Your task to perform on an android device: toggle pop-ups in chrome Image 0: 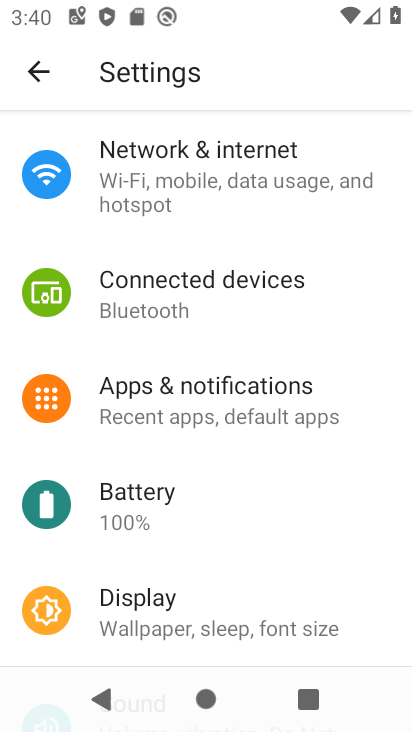
Step 0: press back button
Your task to perform on an android device: toggle pop-ups in chrome Image 1: 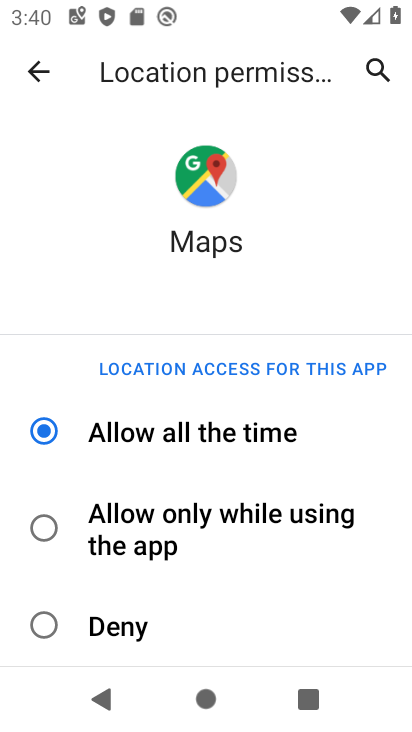
Step 1: press back button
Your task to perform on an android device: toggle pop-ups in chrome Image 2: 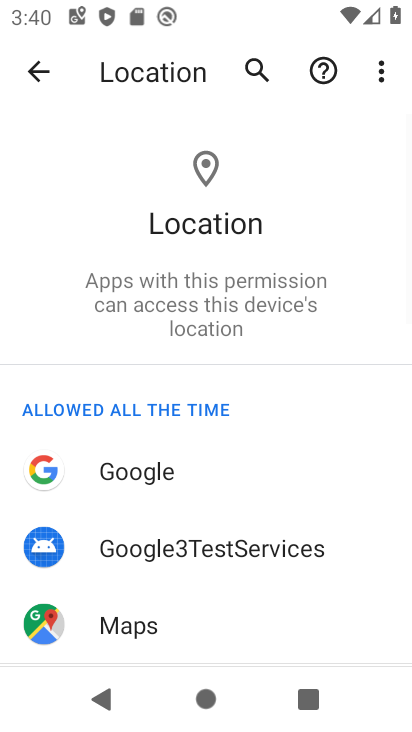
Step 2: press back button
Your task to perform on an android device: toggle pop-ups in chrome Image 3: 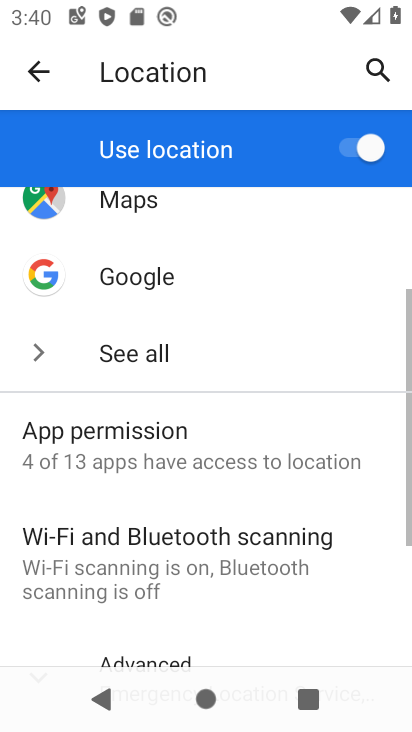
Step 3: press back button
Your task to perform on an android device: toggle pop-ups in chrome Image 4: 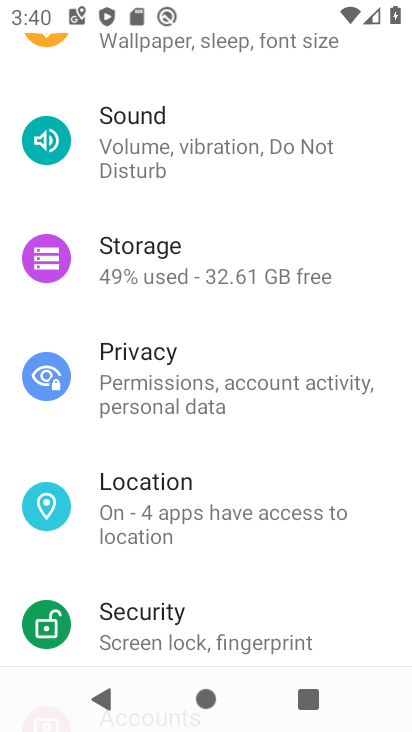
Step 4: press back button
Your task to perform on an android device: toggle pop-ups in chrome Image 5: 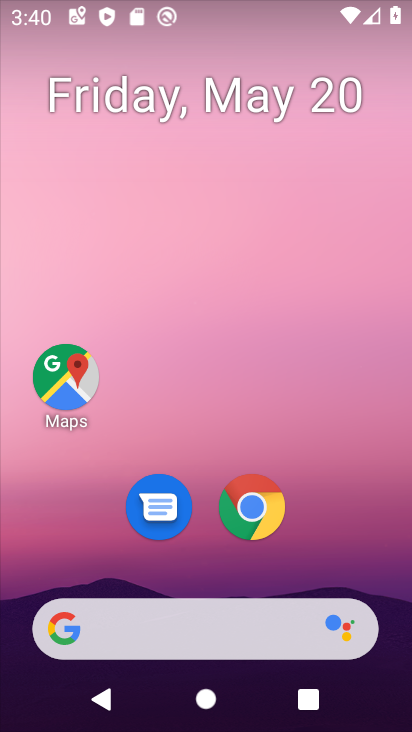
Step 5: click (255, 507)
Your task to perform on an android device: toggle pop-ups in chrome Image 6: 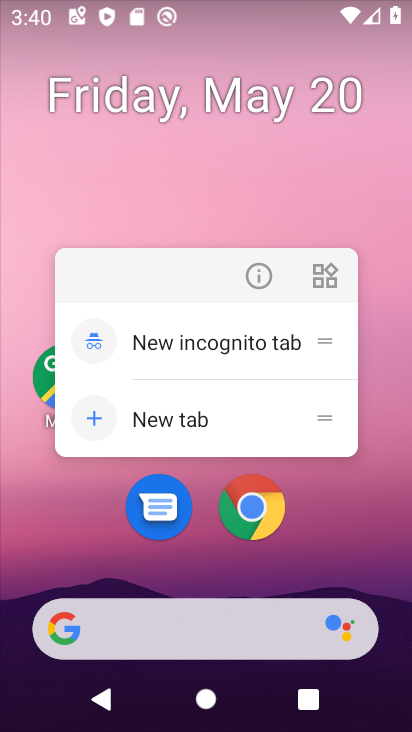
Step 6: click (254, 505)
Your task to perform on an android device: toggle pop-ups in chrome Image 7: 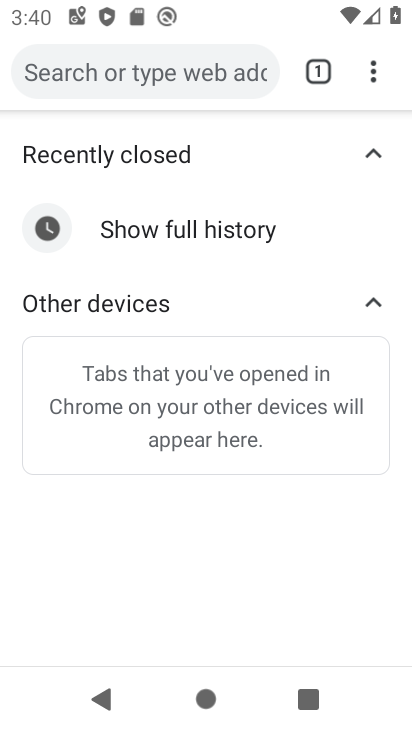
Step 7: click (375, 70)
Your task to perform on an android device: toggle pop-ups in chrome Image 8: 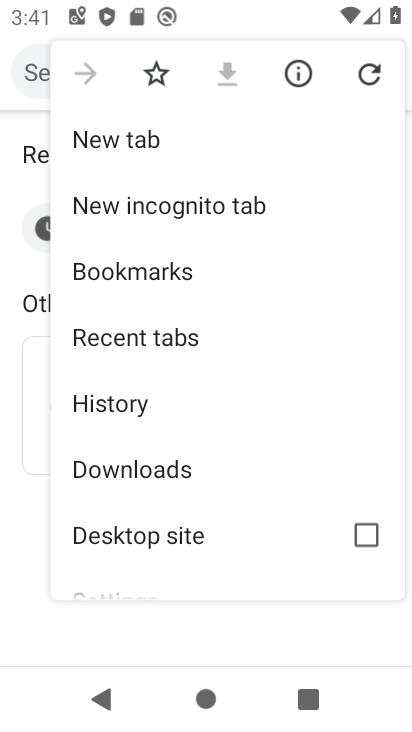
Step 8: drag from (188, 408) to (228, 301)
Your task to perform on an android device: toggle pop-ups in chrome Image 9: 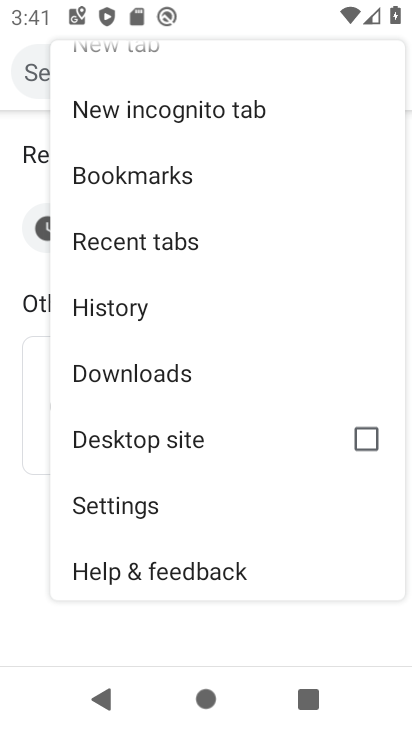
Step 9: drag from (147, 467) to (188, 357)
Your task to perform on an android device: toggle pop-ups in chrome Image 10: 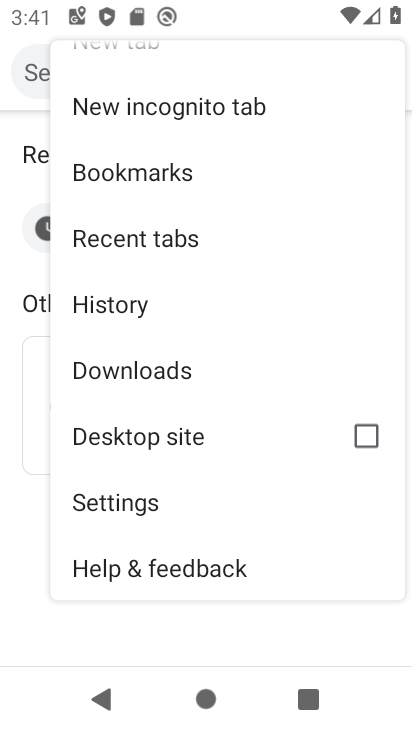
Step 10: click (116, 503)
Your task to perform on an android device: toggle pop-ups in chrome Image 11: 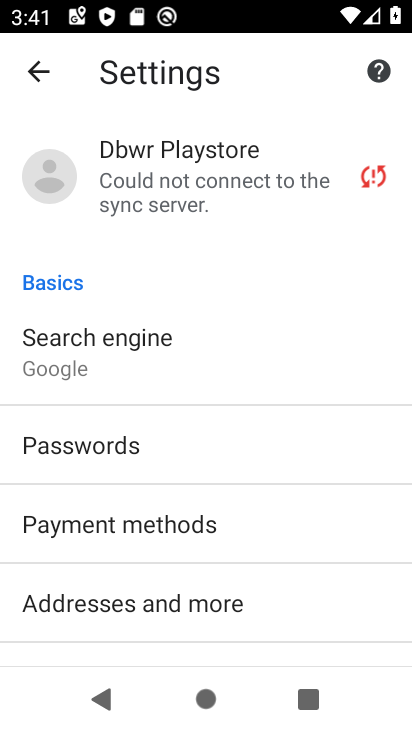
Step 11: drag from (133, 553) to (164, 392)
Your task to perform on an android device: toggle pop-ups in chrome Image 12: 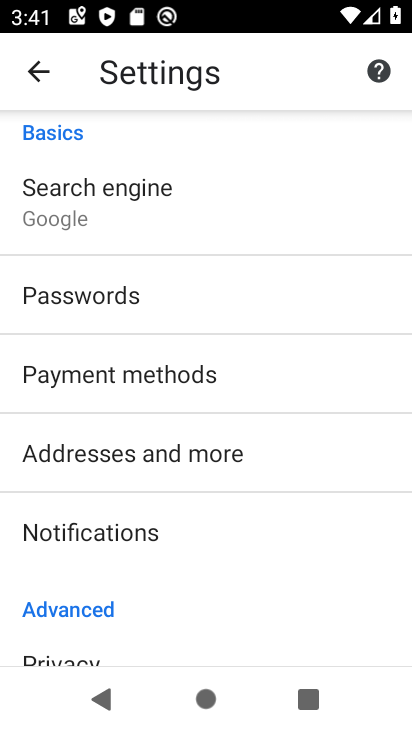
Step 12: drag from (147, 497) to (180, 415)
Your task to perform on an android device: toggle pop-ups in chrome Image 13: 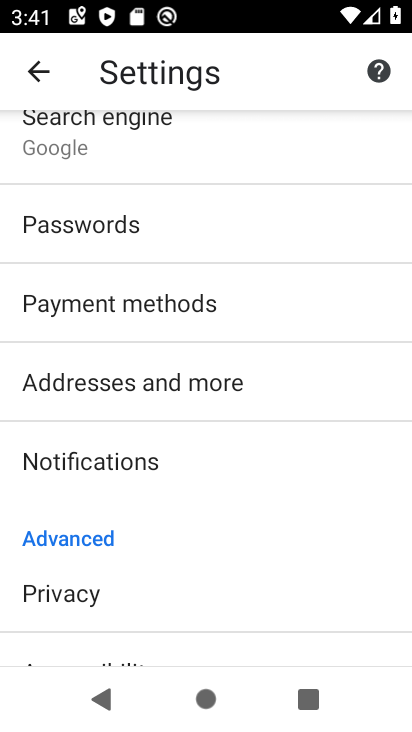
Step 13: drag from (159, 523) to (216, 396)
Your task to perform on an android device: toggle pop-ups in chrome Image 14: 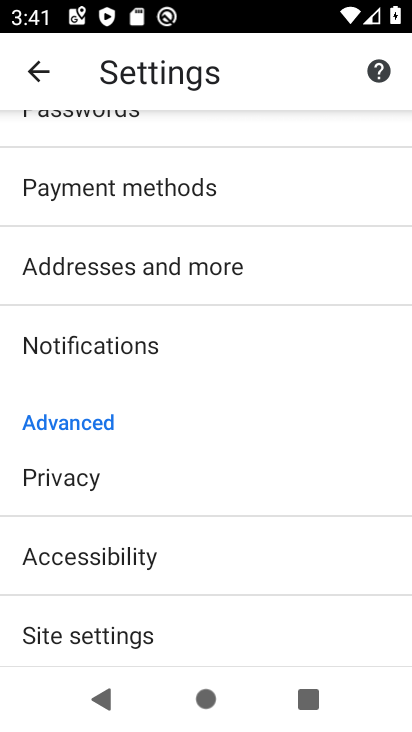
Step 14: drag from (137, 580) to (223, 439)
Your task to perform on an android device: toggle pop-ups in chrome Image 15: 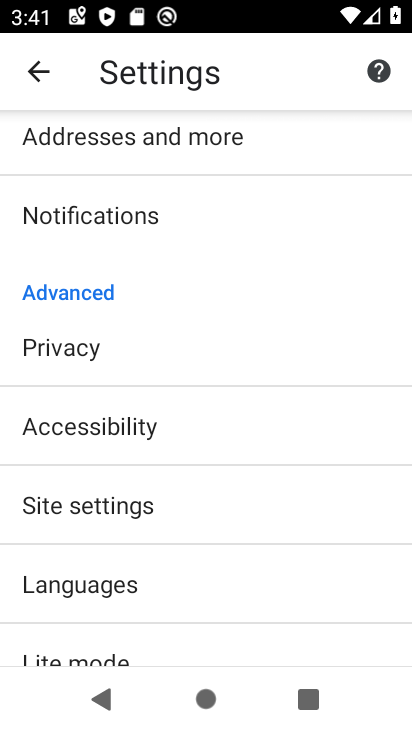
Step 15: click (124, 509)
Your task to perform on an android device: toggle pop-ups in chrome Image 16: 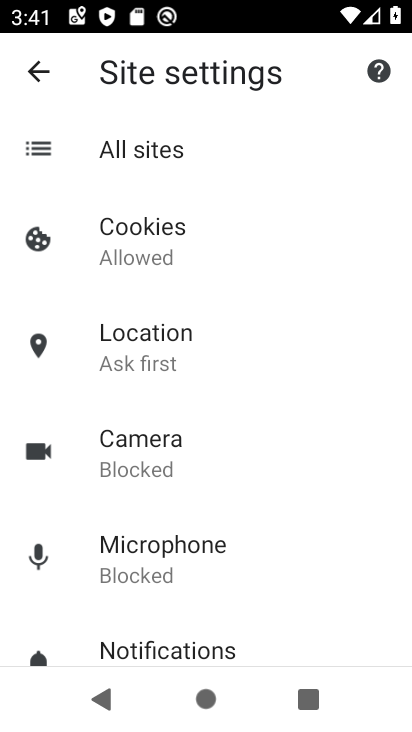
Step 16: drag from (192, 507) to (215, 415)
Your task to perform on an android device: toggle pop-ups in chrome Image 17: 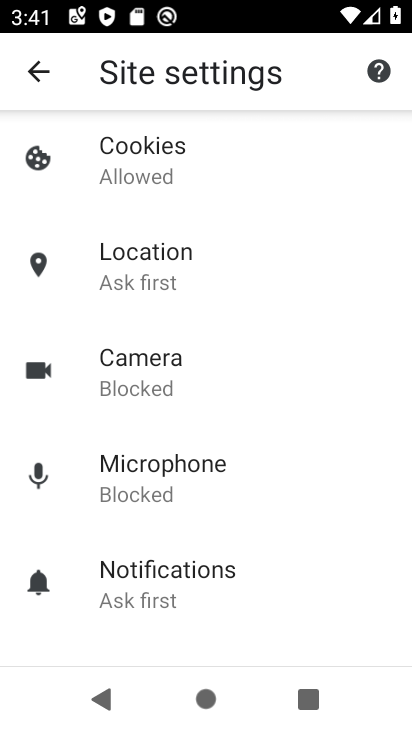
Step 17: drag from (186, 613) to (234, 497)
Your task to perform on an android device: toggle pop-ups in chrome Image 18: 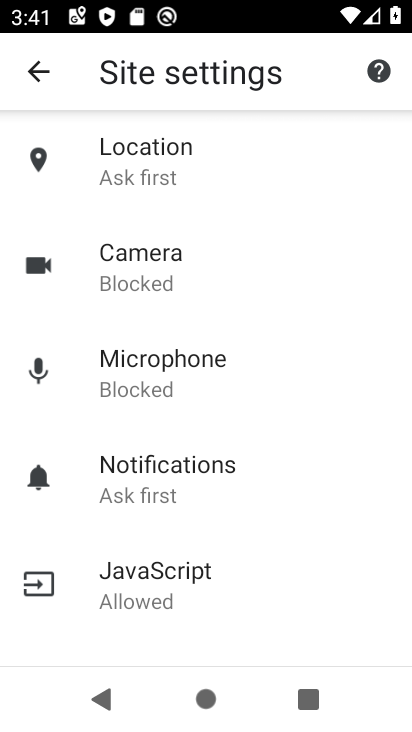
Step 18: drag from (219, 593) to (235, 467)
Your task to perform on an android device: toggle pop-ups in chrome Image 19: 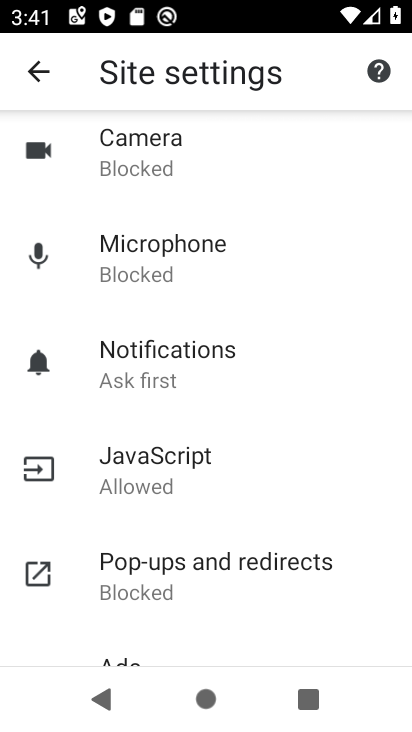
Step 19: click (204, 560)
Your task to perform on an android device: toggle pop-ups in chrome Image 20: 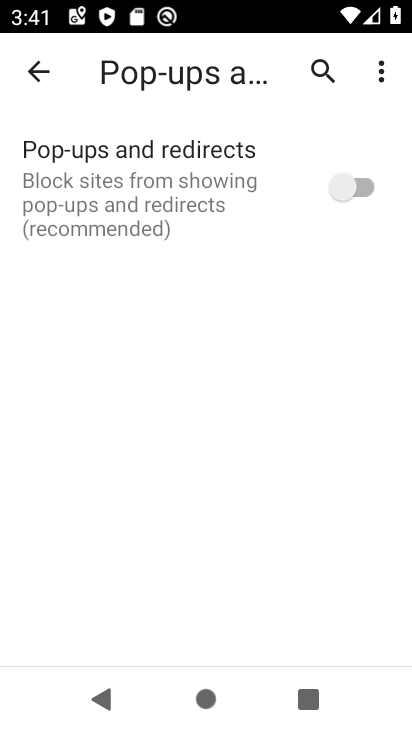
Step 20: click (343, 188)
Your task to perform on an android device: toggle pop-ups in chrome Image 21: 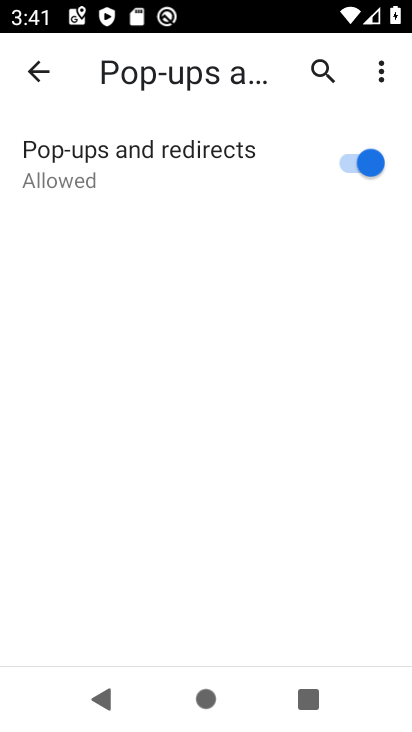
Step 21: task complete